Your task to perform on an android device: See recent photos Image 0: 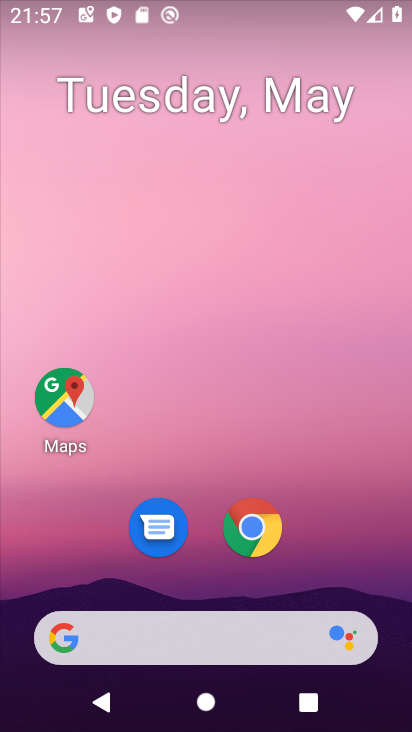
Step 0: drag from (197, 590) to (154, 4)
Your task to perform on an android device: See recent photos Image 1: 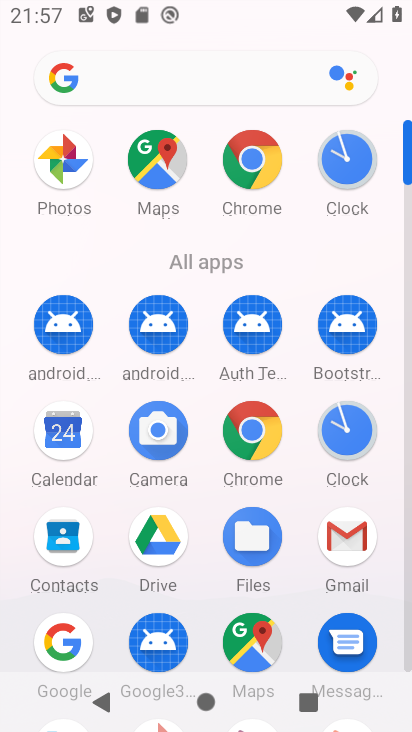
Step 1: drag from (197, 587) to (150, 266)
Your task to perform on an android device: See recent photos Image 2: 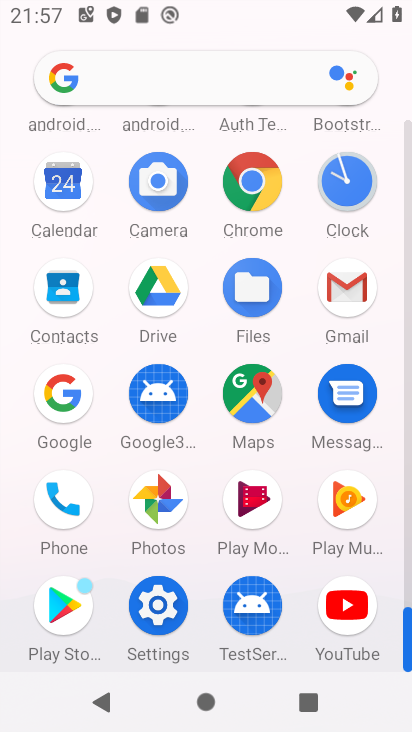
Step 2: click (160, 495)
Your task to perform on an android device: See recent photos Image 3: 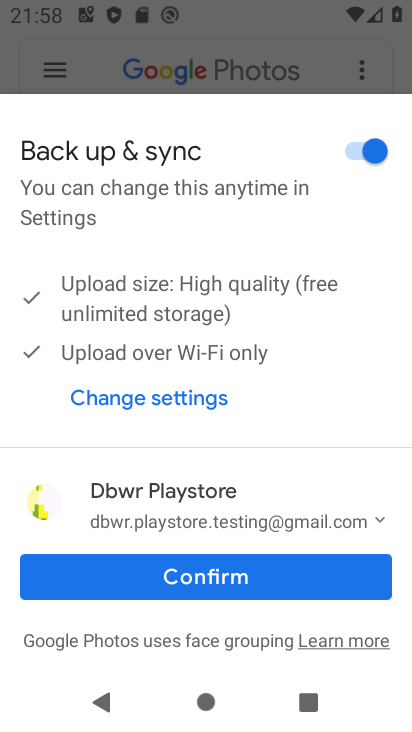
Step 3: click (157, 564)
Your task to perform on an android device: See recent photos Image 4: 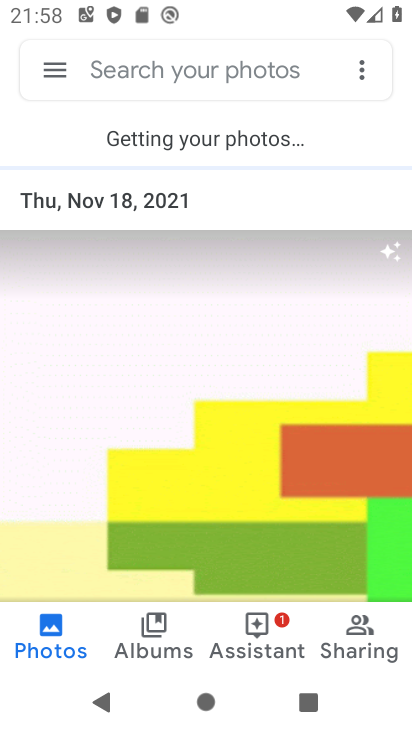
Step 4: task complete